Your task to perform on an android device: Is it going to rain tomorrow? Image 0: 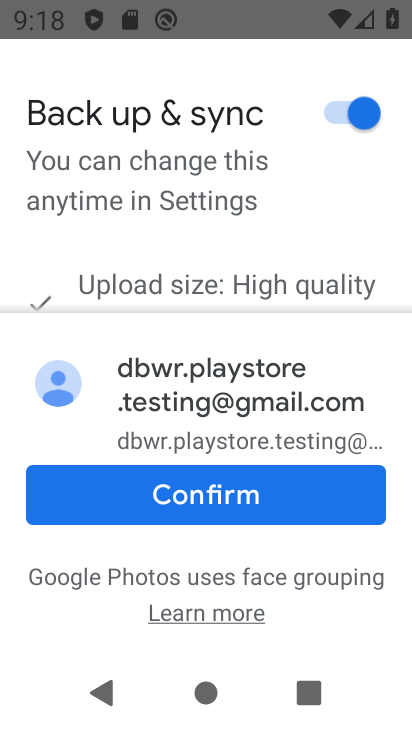
Step 0: drag from (69, 730) to (345, 722)
Your task to perform on an android device: Is it going to rain tomorrow? Image 1: 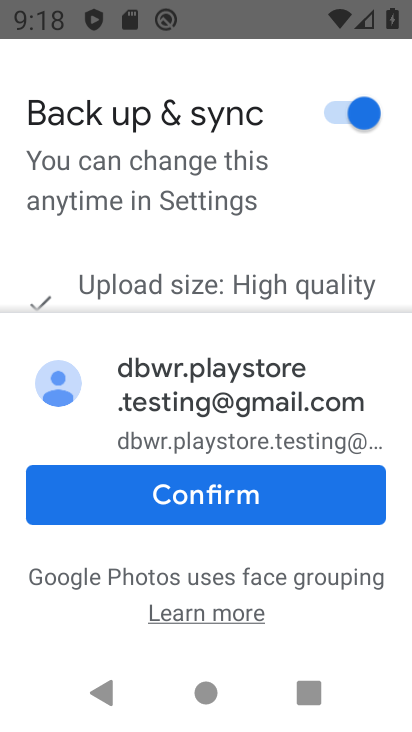
Step 1: press home button
Your task to perform on an android device: Is it going to rain tomorrow? Image 2: 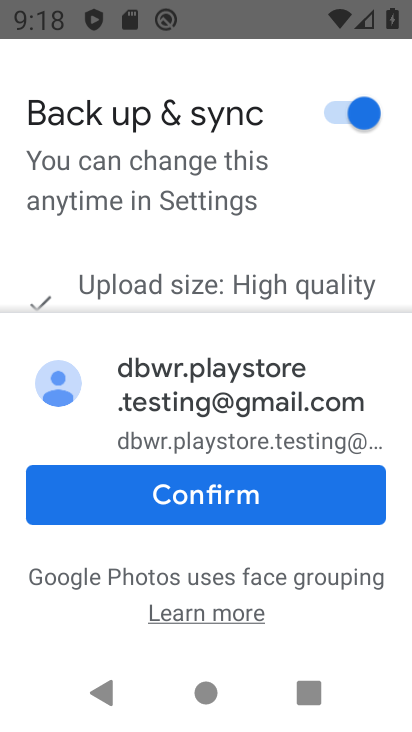
Step 2: press home button
Your task to perform on an android device: Is it going to rain tomorrow? Image 3: 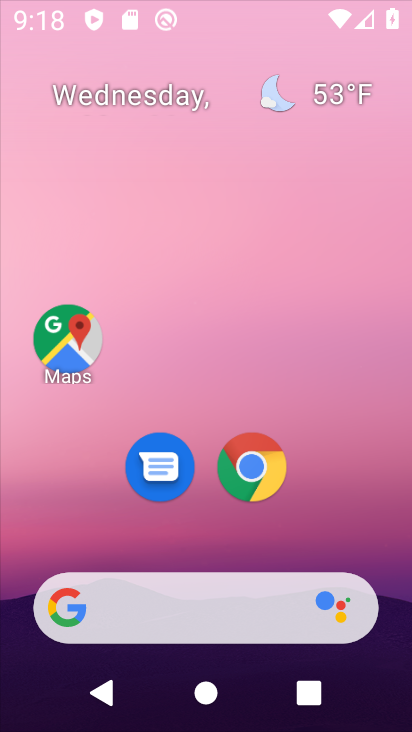
Step 3: press home button
Your task to perform on an android device: Is it going to rain tomorrow? Image 4: 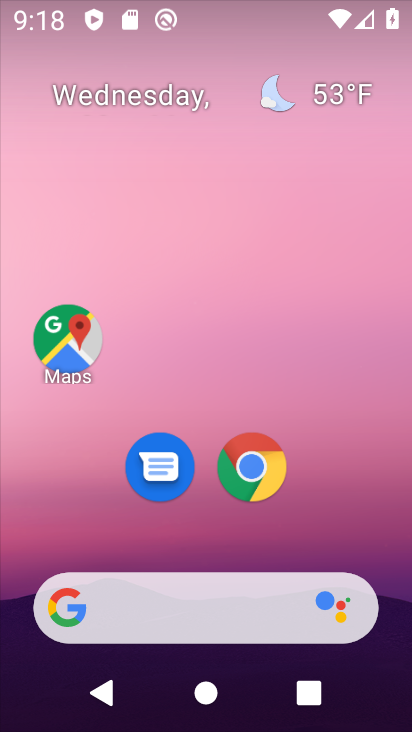
Step 4: press home button
Your task to perform on an android device: Is it going to rain tomorrow? Image 5: 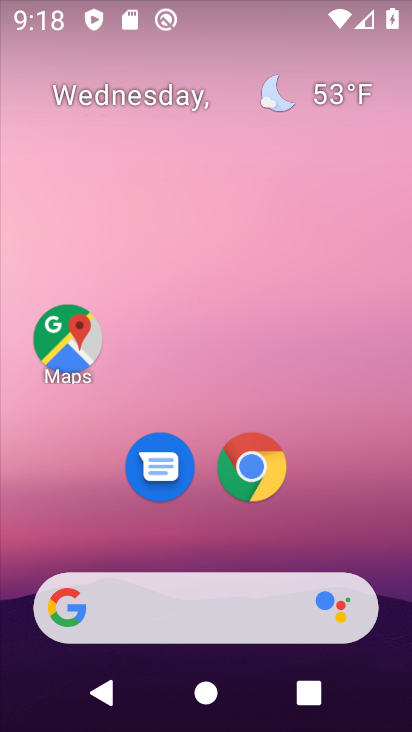
Step 5: click (231, 533)
Your task to perform on an android device: Is it going to rain tomorrow? Image 6: 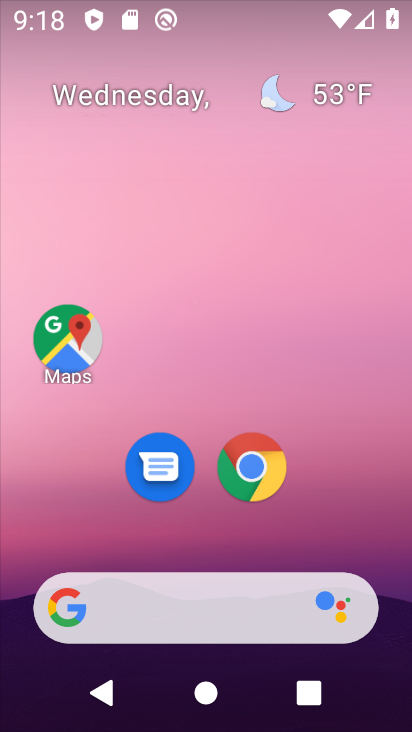
Step 6: click (262, 474)
Your task to perform on an android device: Is it going to rain tomorrow? Image 7: 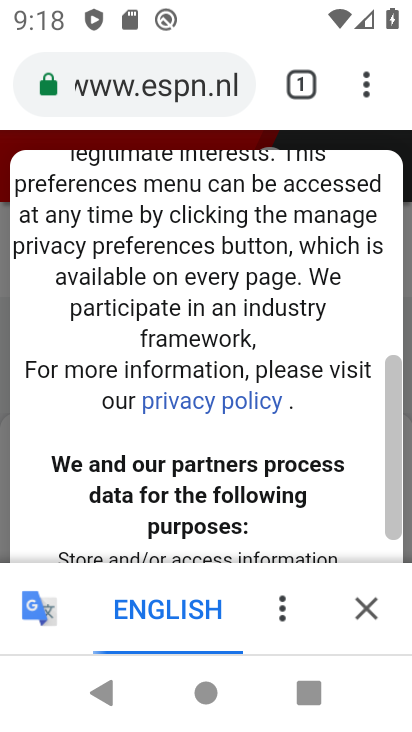
Step 7: click (143, 89)
Your task to perform on an android device: Is it going to rain tomorrow? Image 8: 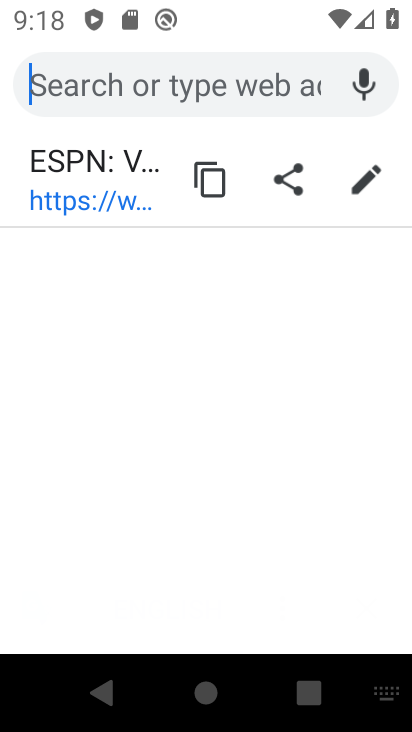
Step 8: type "Is it going to rain tomorrow?"
Your task to perform on an android device: Is it going to rain tomorrow? Image 9: 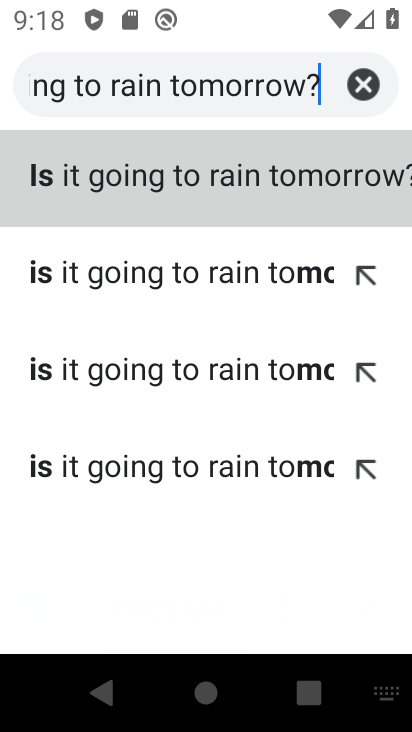
Step 9: click (160, 190)
Your task to perform on an android device: Is it going to rain tomorrow? Image 10: 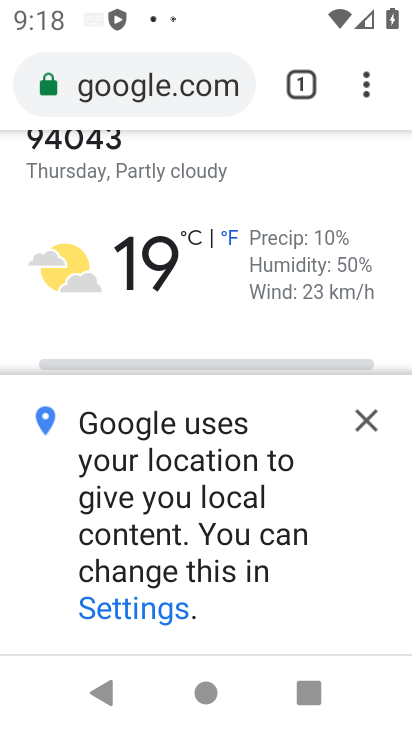
Step 10: click (372, 421)
Your task to perform on an android device: Is it going to rain tomorrow? Image 11: 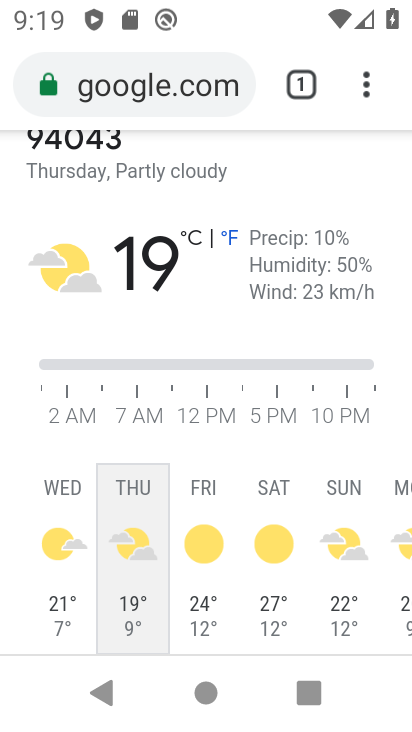
Step 11: task complete